Your task to perform on an android device: Open network settings Image 0: 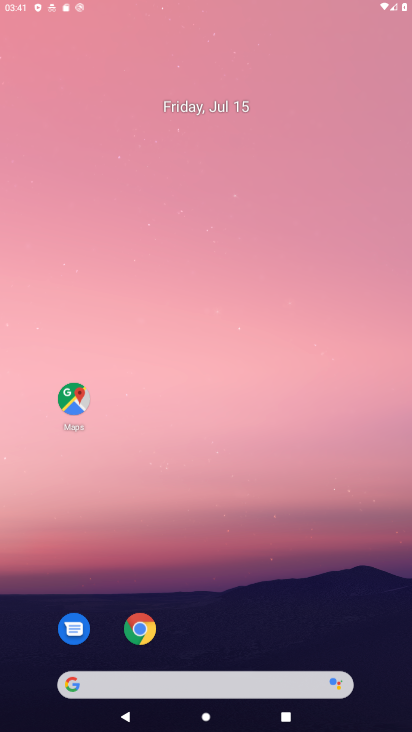
Step 0: drag from (235, 223) to (244, 92)
Your task to perform on an android device: Open network settings Image 1: 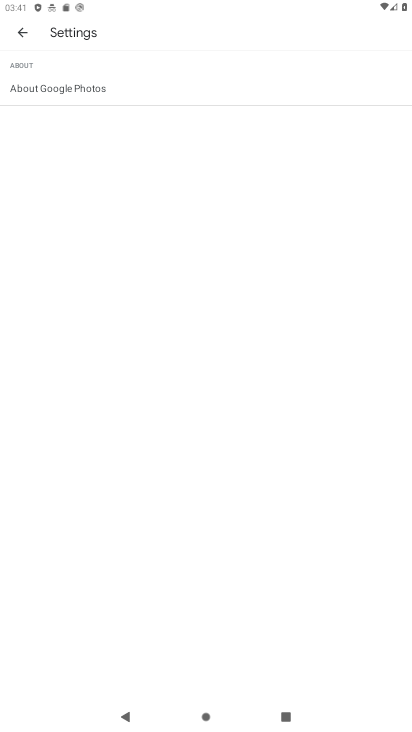
Step 1: task complete